Your task to perform on an android device: What is the news today? Image 0: 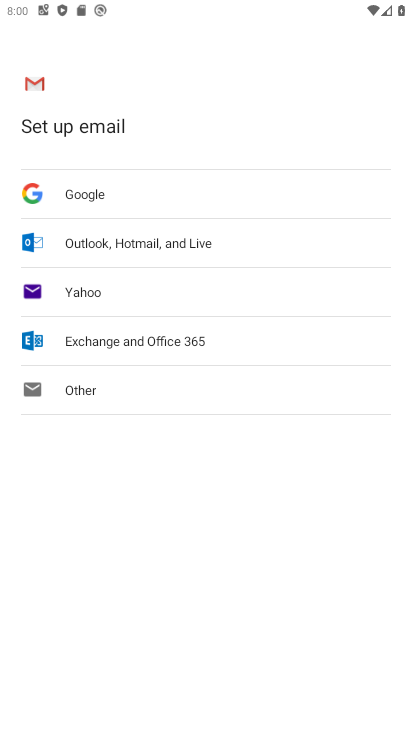
Step 0: press home button
Your task to perform on an android device: What is the news today? Image 1: 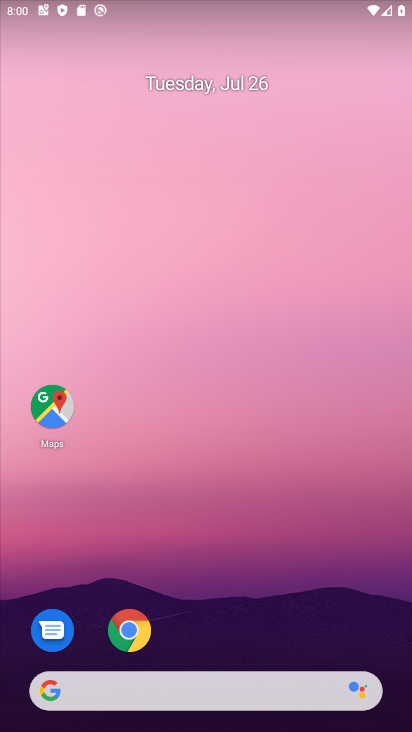
Step 1: click (226, 687)
Your task to perform on an android device: What is the news today? Image 2: 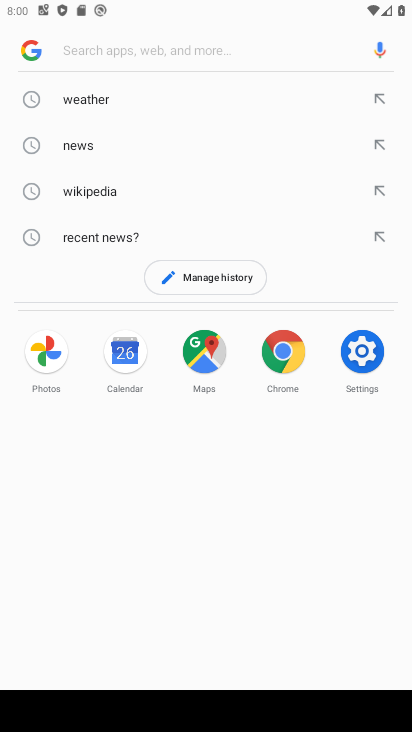
Step 2: click (67, 155)
Your task to perform on an android device: What is the news today? Image 3: 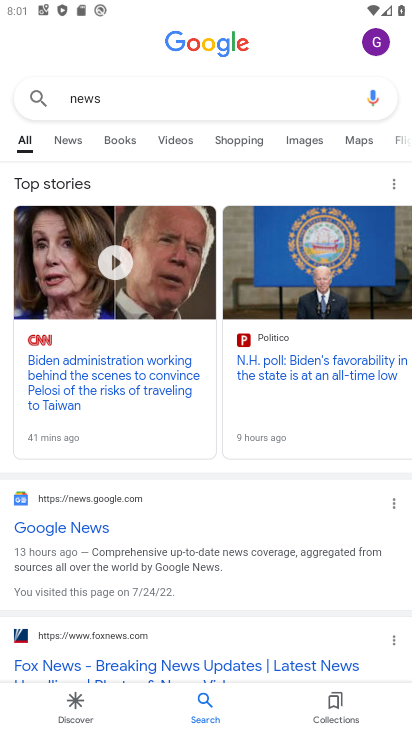
Step 3: task complete